Your task to perform on an android device: What is the news today? Image 0: 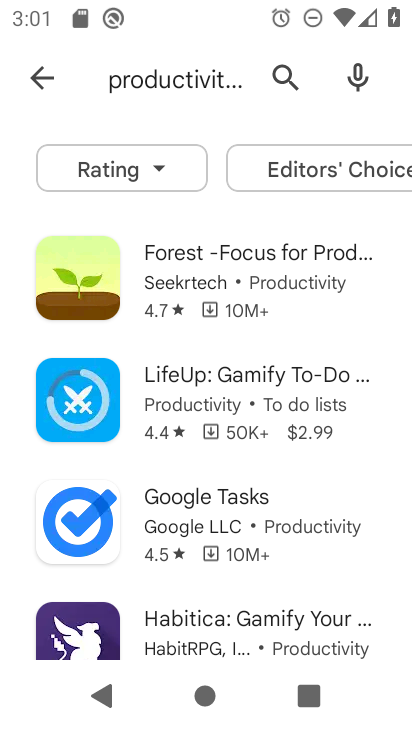
Step 0: press home button
Your task to perform on an android device: What is the news today? Image 1: 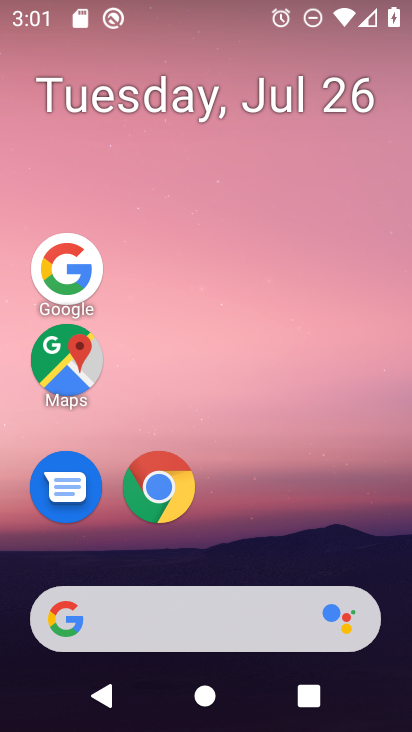
Step 1: drag from (220, 618) to (274, 121)
Your task to perform on an android device: What is the news today? Image 2: 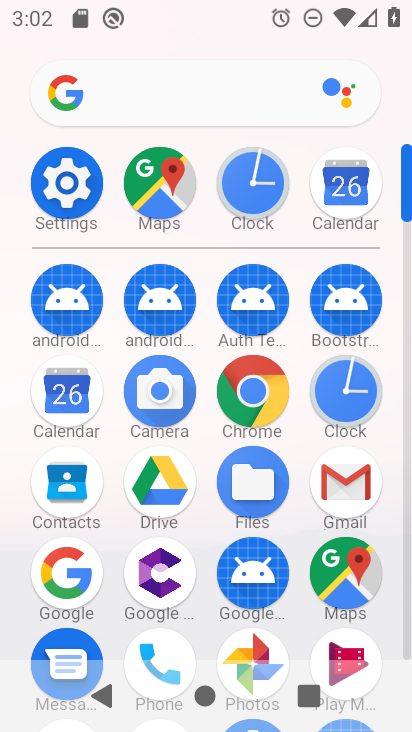
Step 2: click (60, 588)
Your task to perform on an android device: What is the news today? Image 3: 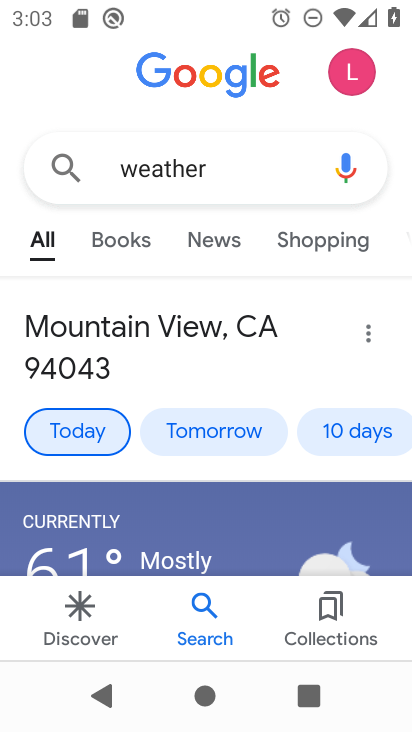
Step 3: click (268, 183)
Your task to perform on an android device: What is the news today? Image 4: 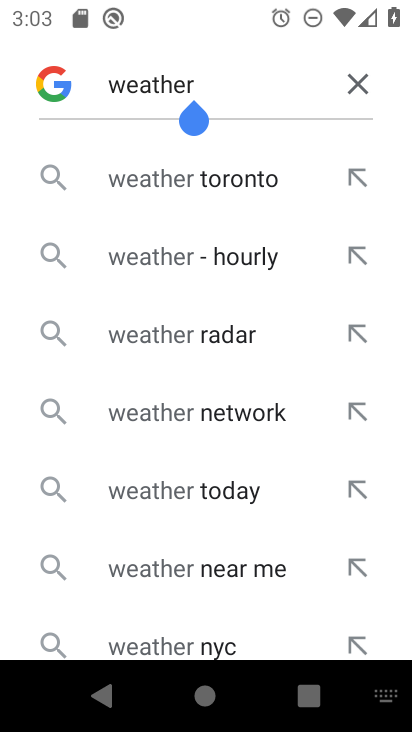
Step 4: click (370, 24)
Your task to perform on an android device: What is the news today? Image 5: 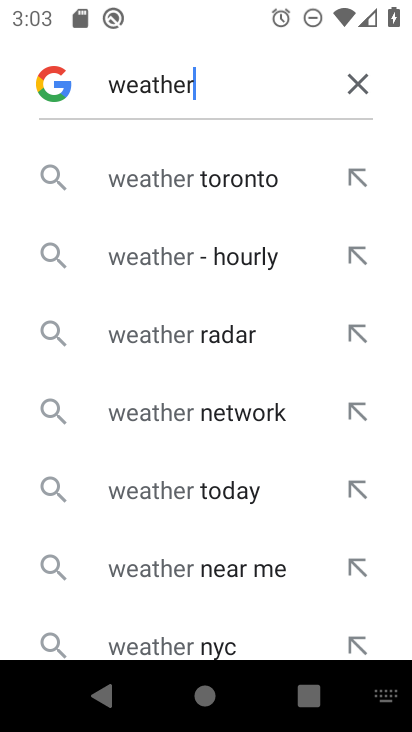
Step 5: click (350, 87)
Your task to perform on an android device: What is the news today? Image 6: 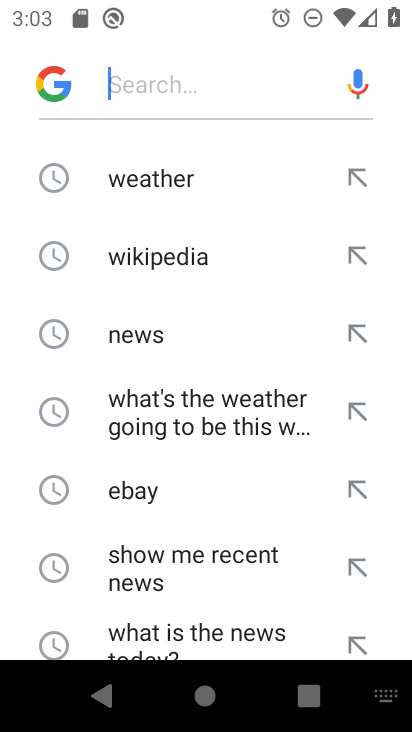
Step 6: click (176, 337)
Your task to perform on an android device: What is the news today? Image 7: 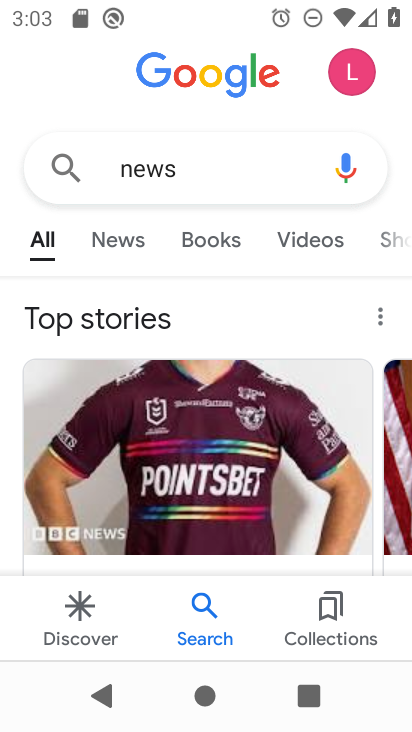
Step 7: click (116, 236)
Your task to perform on an android device: What is the news today? Image 8: 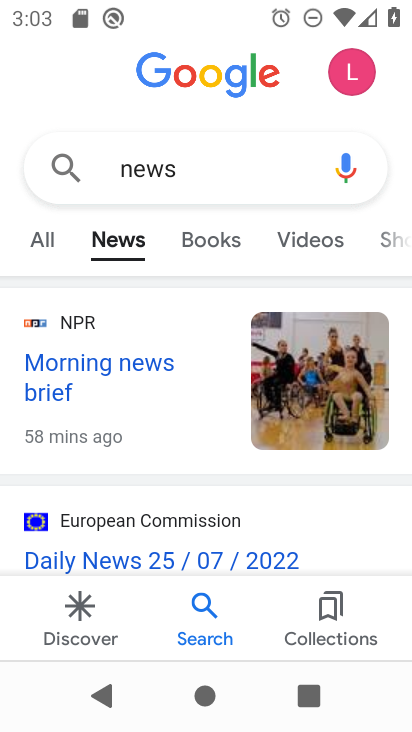
Step 8: task complete